Your task to perform on an android device: turn off location Image 0: 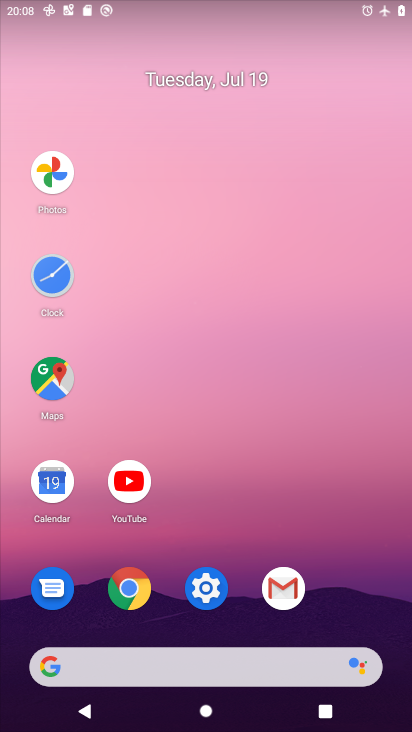
Step 0: click (210, 591)
Your task to perform on an android device: turn off location Image 1: 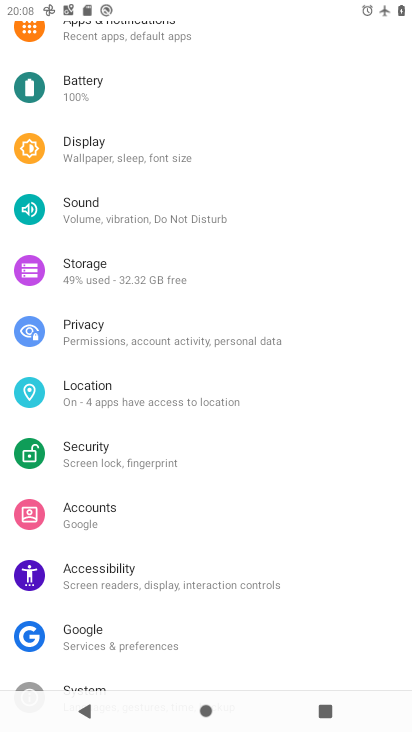
Step 1: click (74, 387)
Your task to perform on an android device: turn off location Image 2: 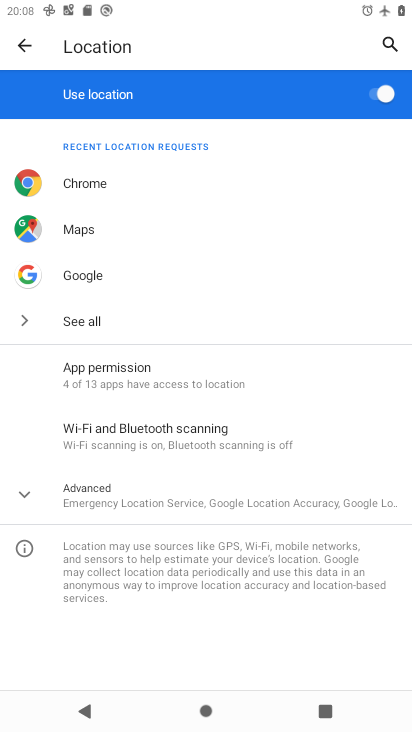
Step 2: click (384, 99)
Your task to perform on an android device: turn off location Image 3: 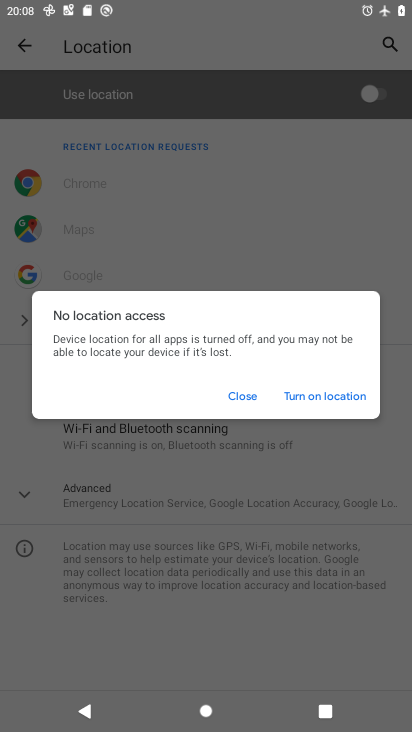
Step 3: click (234, 385)
Your task to perform on an android device: turn off location Image 4: 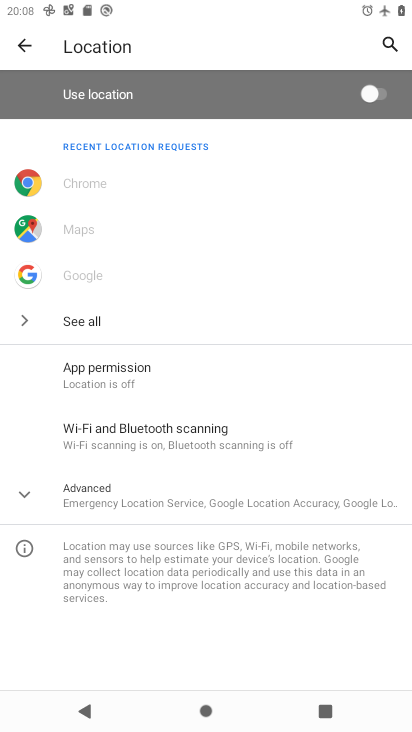
Step 4: task complete